Your task to perform on an android device: check google app version Image 0: 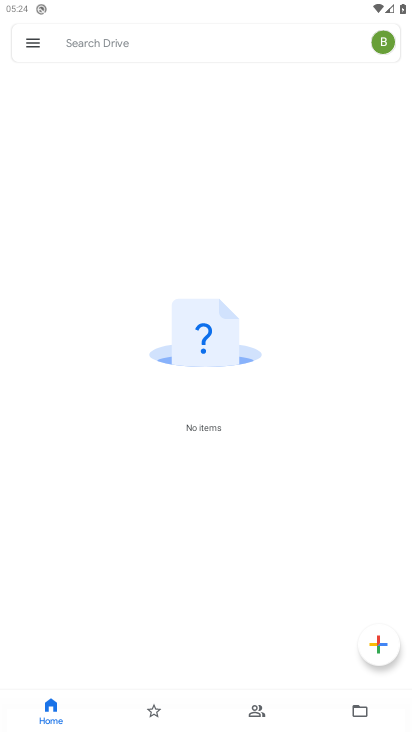
Step 0: press home button
Your task to perform on an android device: check google app version Image 1: 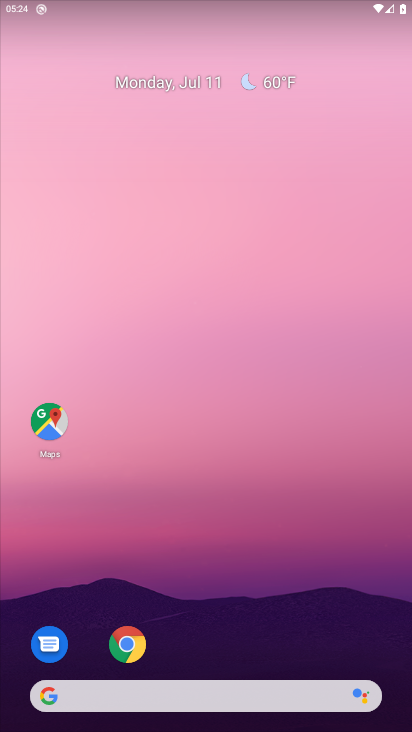
Step 1: drag from (148, 686) to (165, 336)
Your task to perform on an android device: check google app version Image 2: 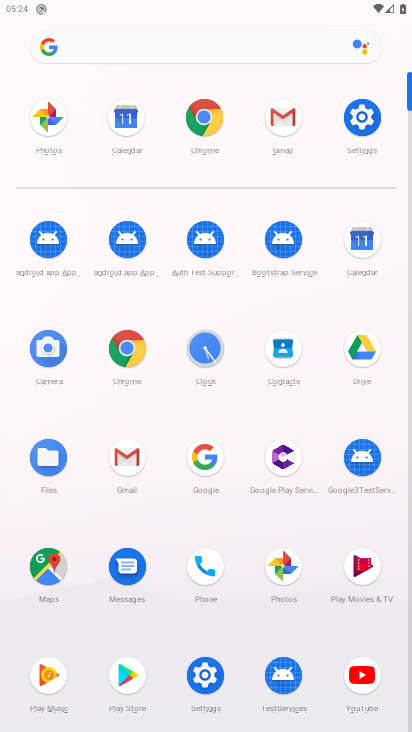
Step 2: click (206, 463)
Your task to perform on an android device: check google app version Image 3: 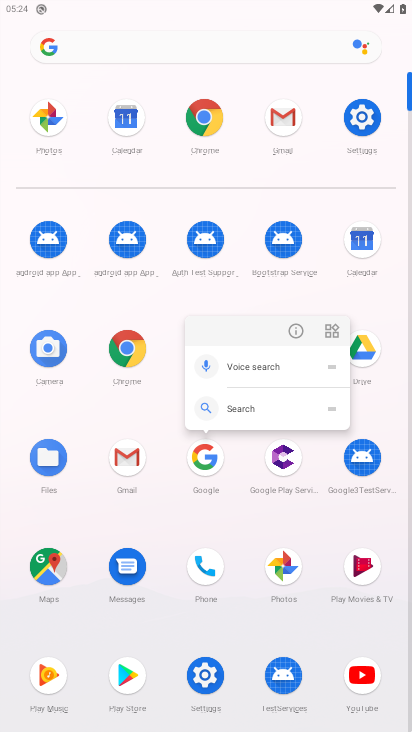
Step 3: click (290, 326)
Your task to perform on an android device: check google app version Image 4: 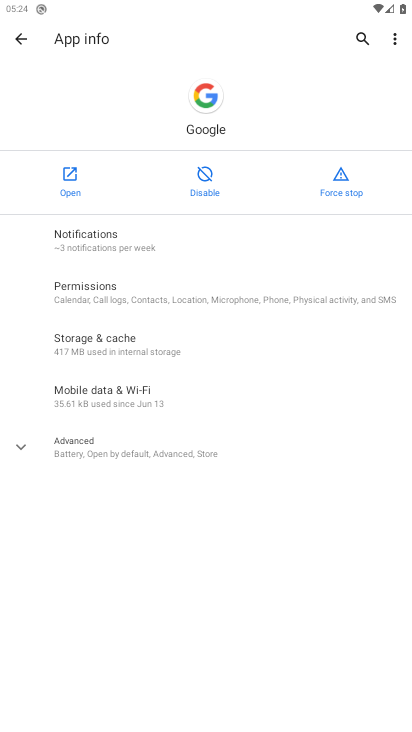
Step 4: click (100, 449)
Your task to perform on an android device: check google app version Image 5: 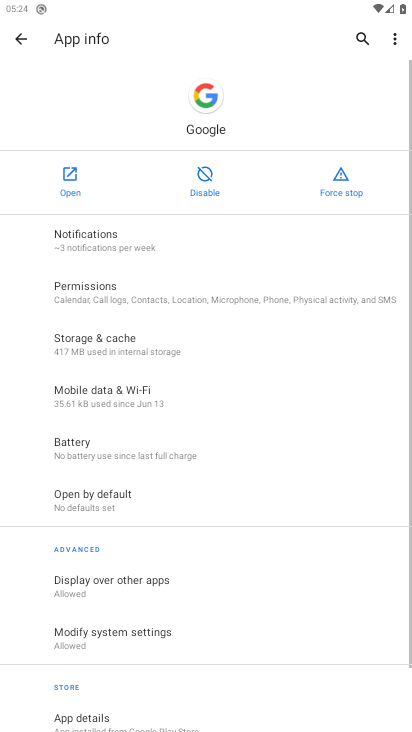
Step 5: task complete